Your task to perform on an android device: Open Android settings Image 0: 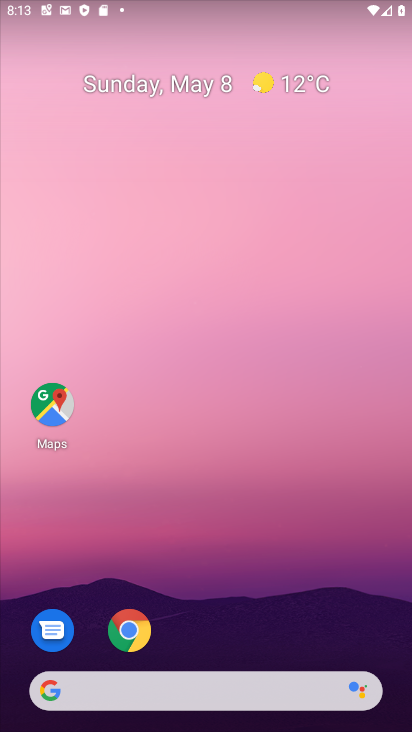
Step 0: drag from (310, 582) to (390, 130)
Your task to perform on an android device: Open Android settings Image 1: 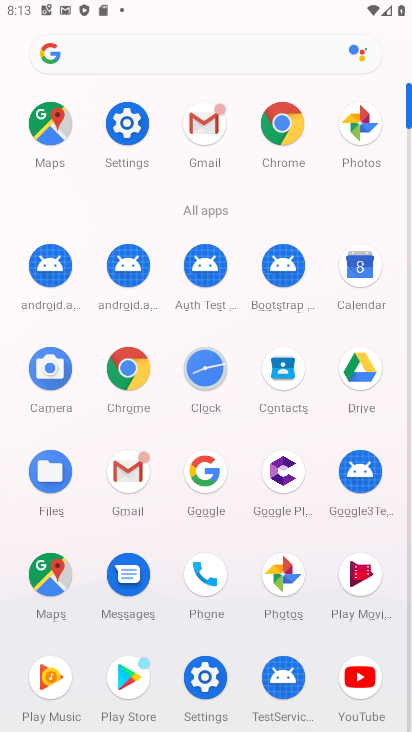
Step 1: click (125, 122)
Your task to perform on an android device: Open Android settings Image 2: 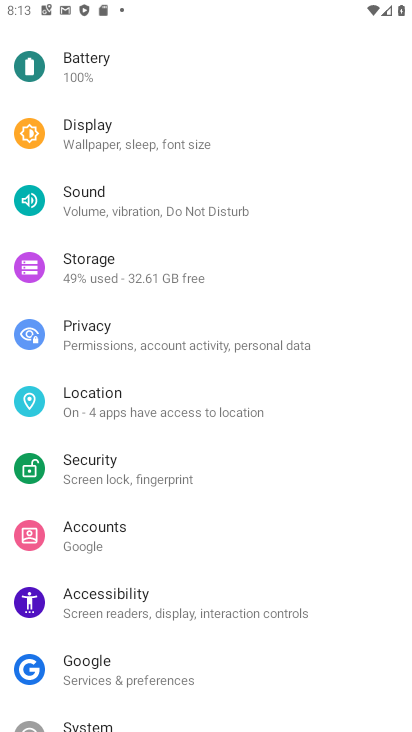
Step 2: drag from (261, 576) to (307, 326)
Your task to perform on an android device: Open Android settings Image 3: 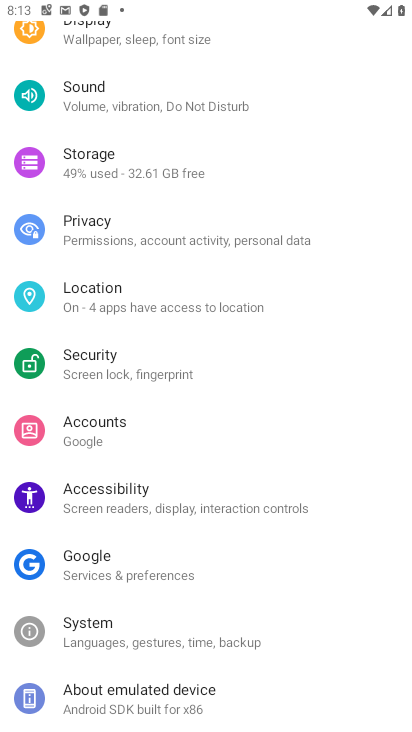
Step 3: click (81, 694)
Your task to perform on an android device: Open Android settings Image 4: 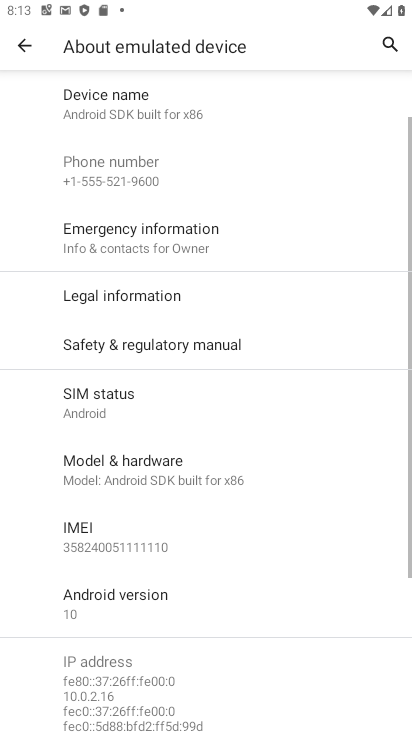
Step 4: click (168, 602)
Your task to perform on an android device: Open Android settings Image 5: 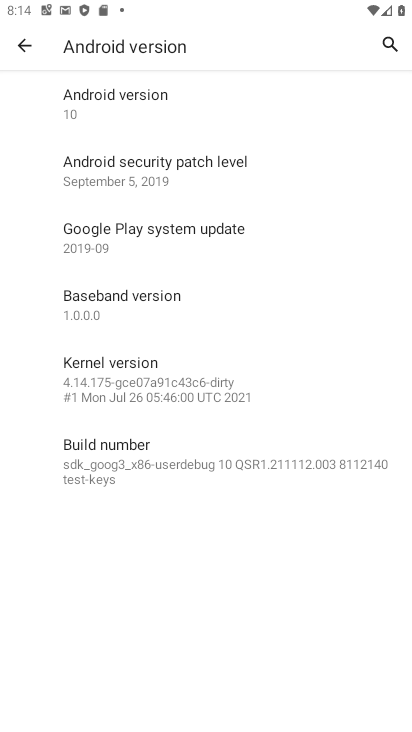
Step 5: task complete